Your task to perform on an android device: choose inbox layout in the gmail app Image 0: 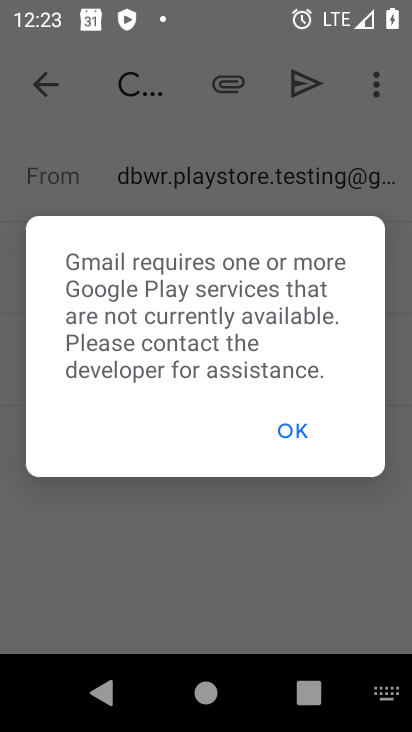
Step 0: press back button
Your task to perform on an android device: choose inbox layout in the gmail app Image 1: 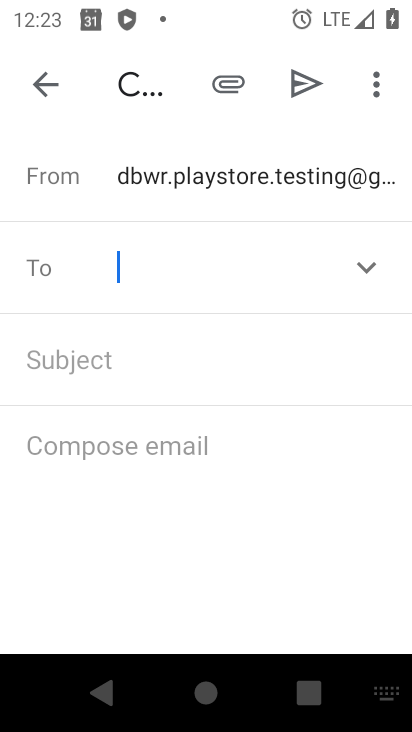
Step 1: click (47, 80)
Your task to perform on an android device: choose inbox layout in the gmail app Image 2: 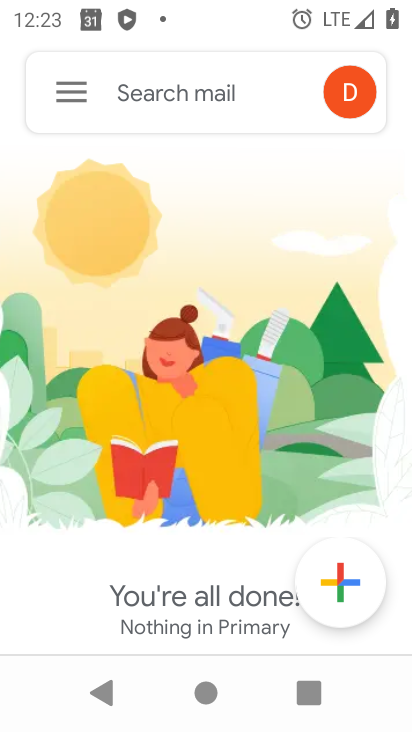
Step 2: click (63, 94)
Your task to perform on an android device: choose inbox layout in the gmail app Image 3: 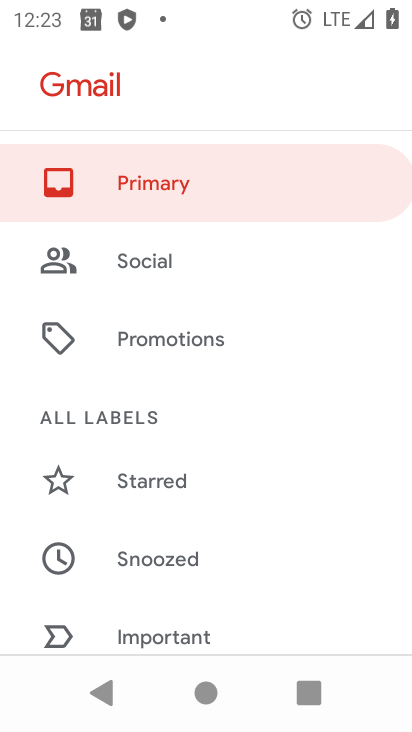
Step 3: drag from (220, 611) to (311, 36)
Your task to perform on an android device: choose inbox layout in the gmail app Image 4: 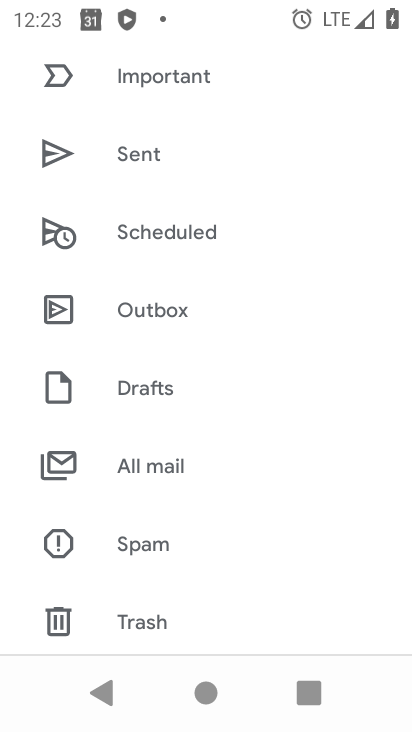
Step 4: drag from (160, 559) to (322, 0)
Your task to perform on an android device: choose inbox layout in the gmail app Image 5: 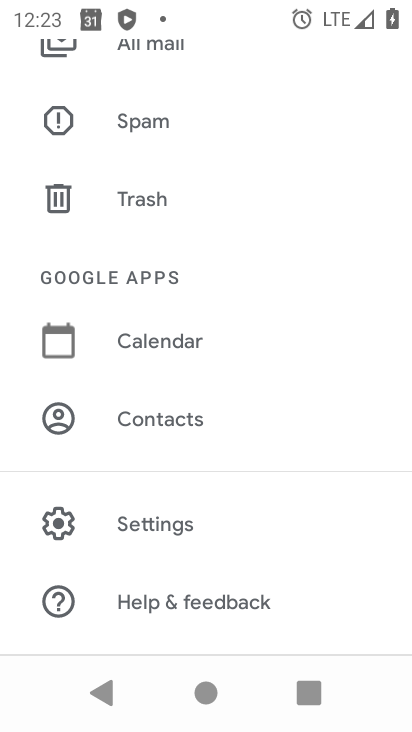
Step 5: click (185, 529)
Your task to perform on an android device: choose inbox layout in the gmail app Image 6: 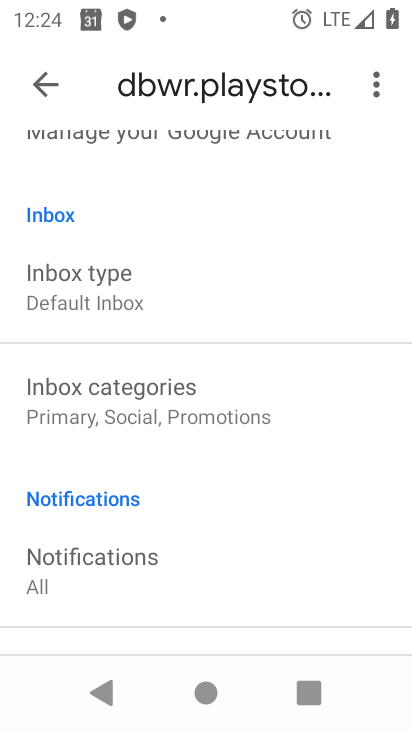
Step 6: click (134, 295)
Your task to perform on an android device: choose inbox layout in the gmail app Image 7: 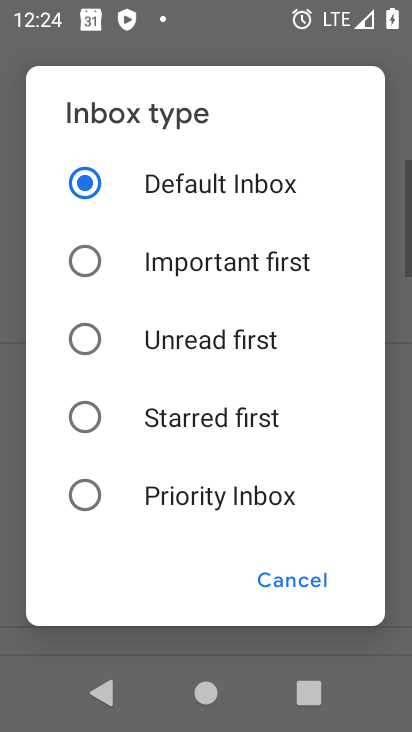
Step 7: click (76, 257)
Your task to perform on an android device: choose inbox layout in the gmail app Image 8: 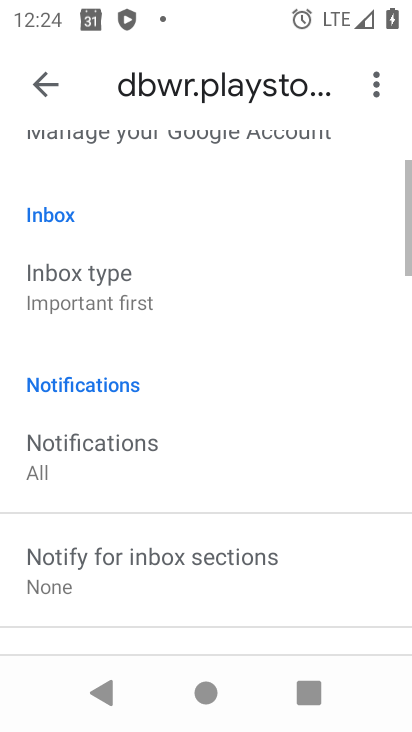
Step 8: task complete